Your task to perform on an android device: Open Google Chrome and click the shortcut for Amazon.com Image 0: 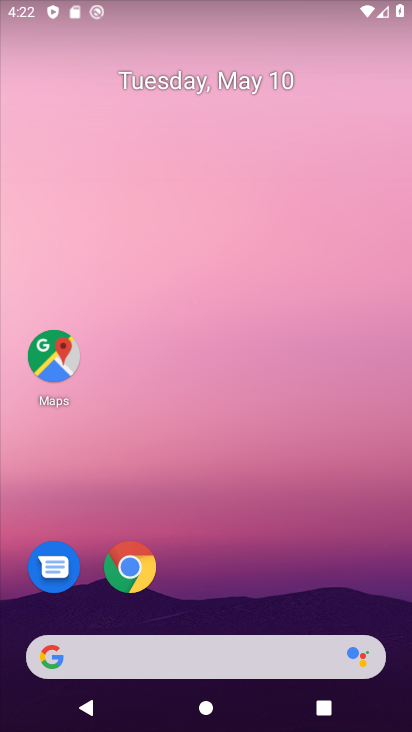
Step 0: click (132, 561)
Your task to perform on an android device: Open Google Chrome and click the shortcut for Amazon.com Image 1: 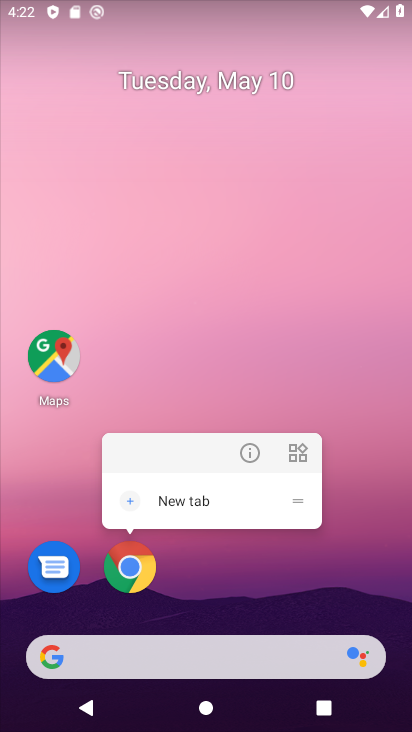
Step 1: click (132, 561)
Your task to perform on an android device: Open Google Chrome and click the shortcut for Amazon.com Image 2: 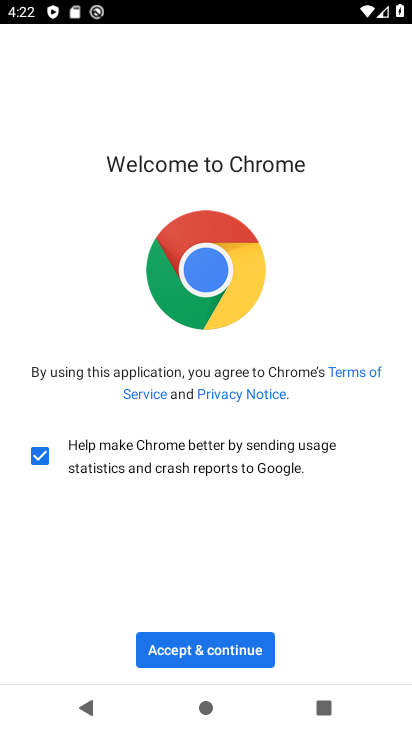
Step 2: click (224, 649)
Your task to perform on an android device: Open Google Chrome and click the shortcut for Amazon.com Image 3: 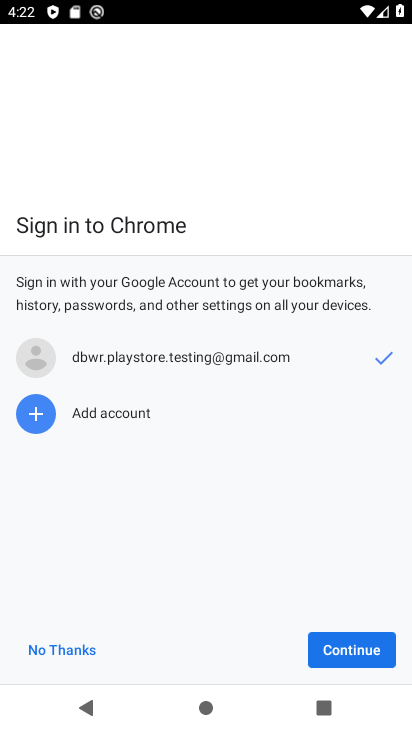
Step 3: click (344, 655)
Your task to perform on an android device: Open Google Chrome and click the shortcut for Amazon.com Image 4: 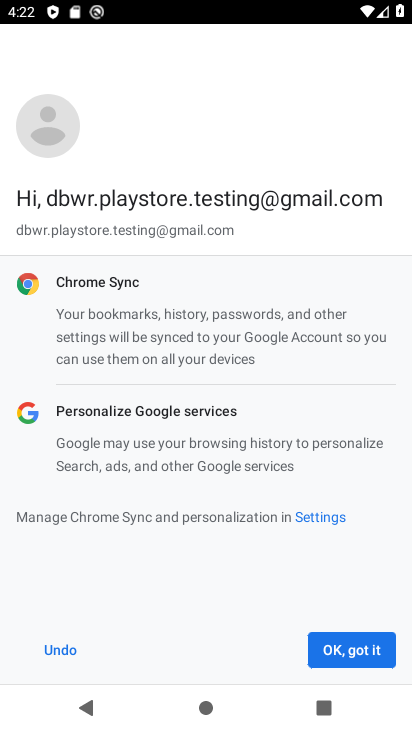
Step 4: click (343, 649)
Your task to perform on an android device: Open Google Chrome and click the shortcut for Amazon.com Image 5: 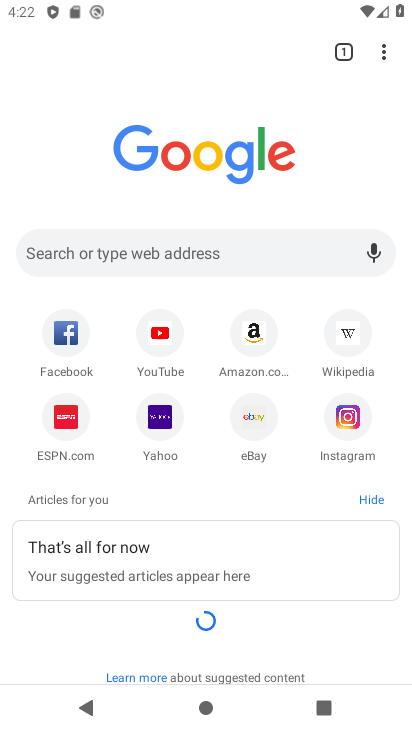
Step 5: click (241, 339)
Your task to perform on an android device: Open Google Chrome and click the shortcut for Amazon.com Image 6: 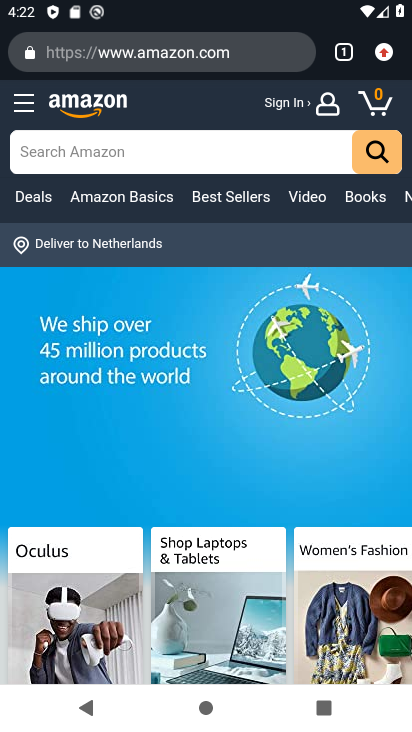
Step 6: task complete